Your task to perform on an android device: open chrome and create a bookmark for the current page Image 0: 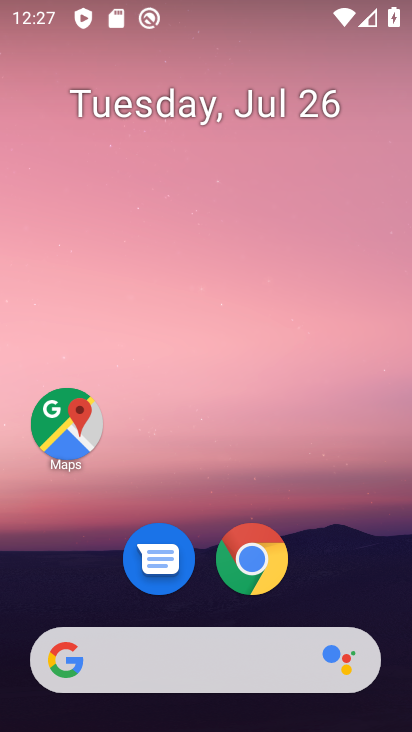
Step 0: click (233, 570)
Your task to perform on an android device: open chrome and create a bookmark for the current page Image 1: 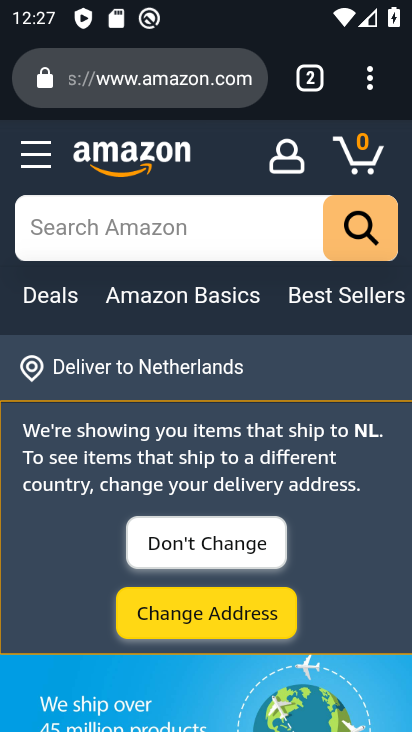
Step 1: drag from (367, 78) to (152, 300)
Your task to perform on an android device: open chrome and create a bookmark for the current page Image 2: 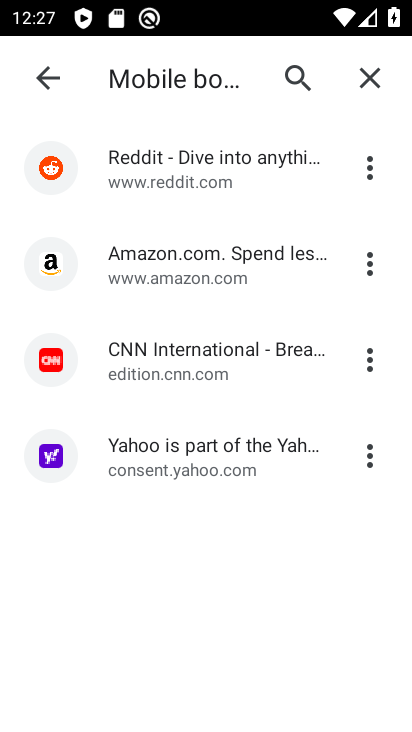
Step 2: click (149, 171)
Your task to perform on an android device: open chrome and create a bookmark for the current page Image 3: 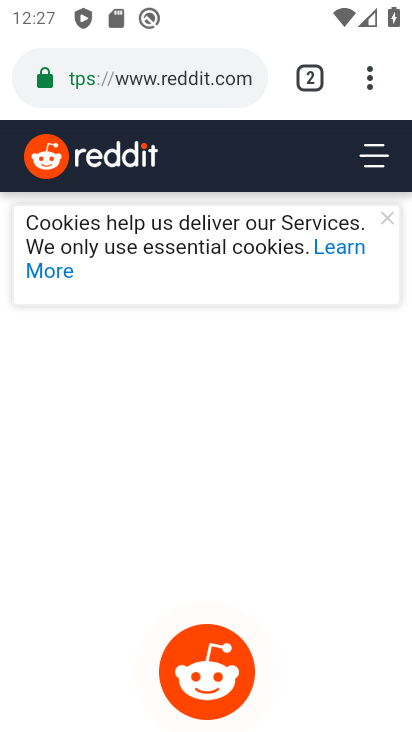
Step 3: task complete